Your task to perform on an android device: Go to ESPN.com Image 0: 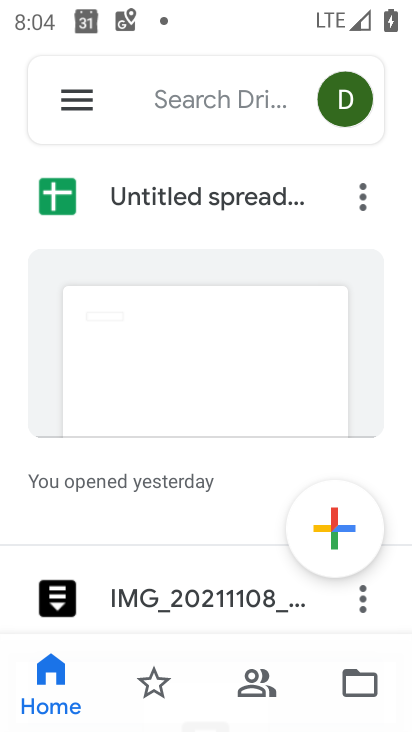
Step 0: press home button
Your task to perform on an android device: Go to ESPN.com Image 1: 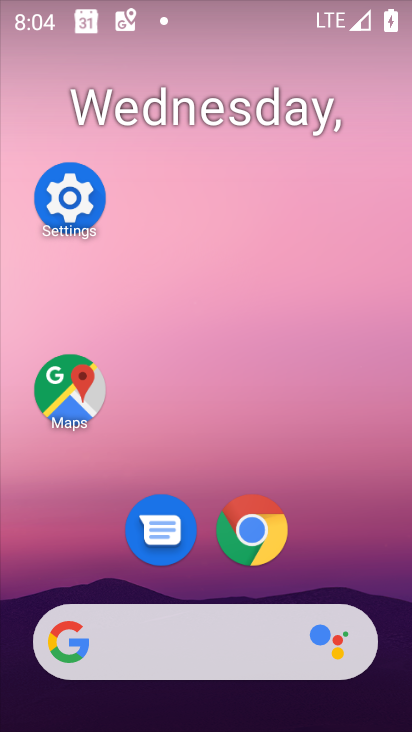
Step 1: click (247, 547)
Your task to perform on an android device: Go to ESPN.com Image 2: 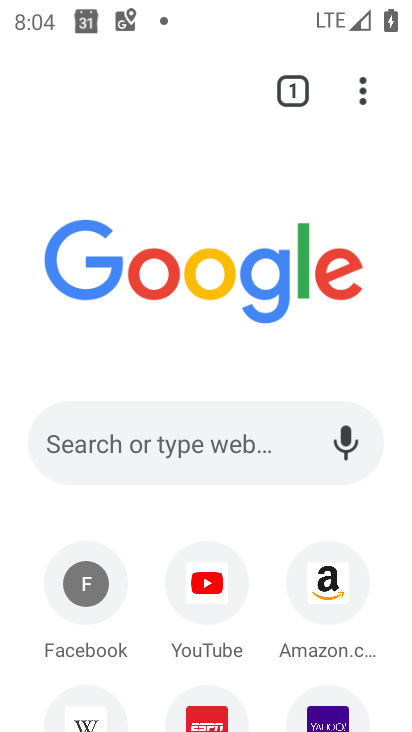
Step 2: click (207, 712)
Your task to perform on an android device: Go to ESPN.com Image 3: 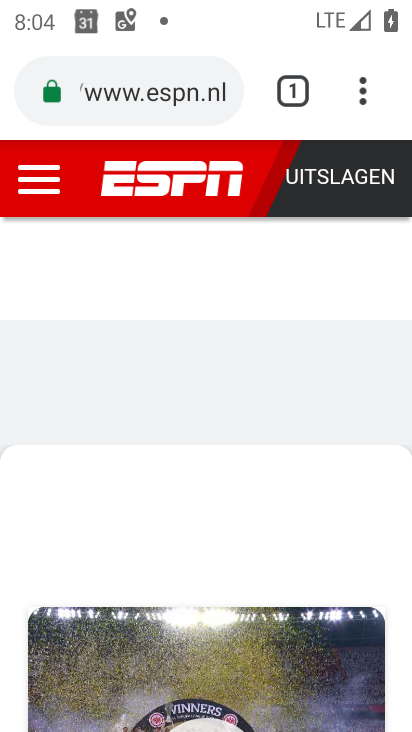
Step 3: task complete